Your task to perform on an android device: When is my next appointment? Image 0: 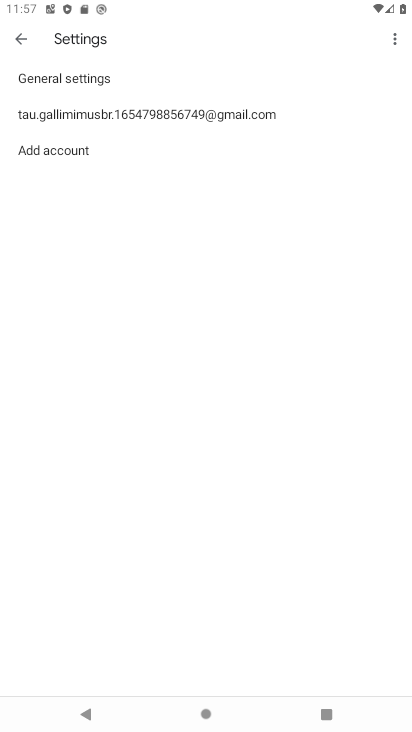
Step 0: press home button
Your task to perform on an android device: When is my next appointment? Image 1: 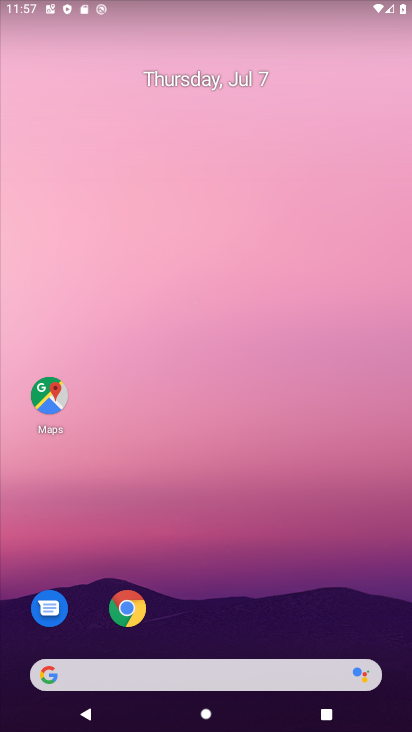
Step 1: task complete